Your task to perform on an android device: Add "logitech g910" to the cart on ebay, then select checkout. Image 0: 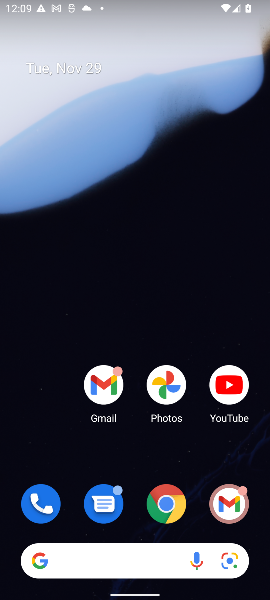
Step 0: click (170, 507)
Your task to perform on an android device: Add "logitech g910" to the cart on ebay, then select checkout. Image 1: 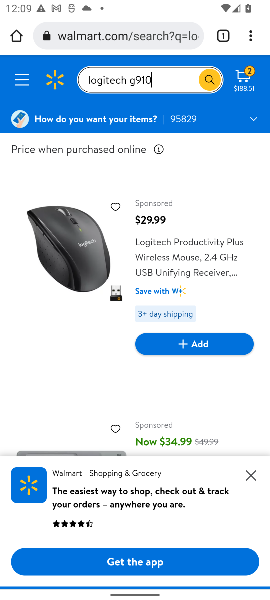
Step 1: click (101, 38)
Your task to perform on an android device: Add "logitech g910" to the cart on ebay, then select checkout. Image 2: 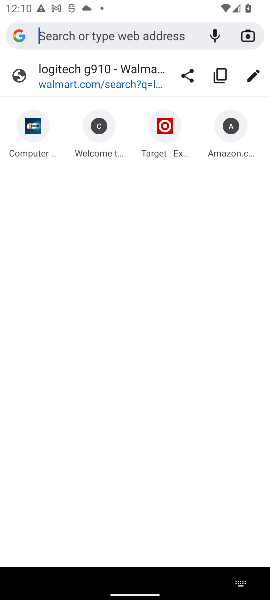
Step 2: type "ebay.com"
Your task to perform on an android device: Add "logitech g910" to the cart on ebay, then select checkout. Image 3: 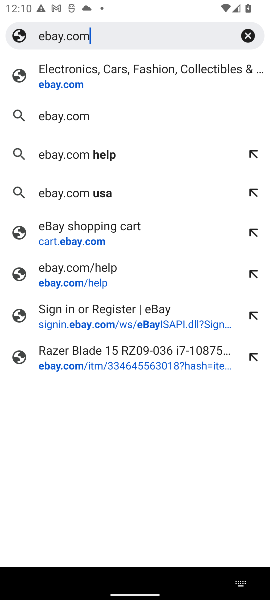
Step 3: click (53, 73)
Your task to perform on an android device: Add "logitech g910" to the cart on ebay, then select checkout. Image 4: 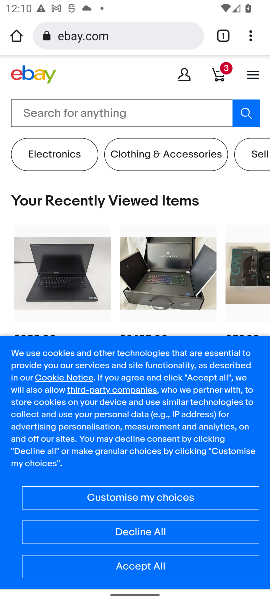
Step 4: click (32, 116)
Your task to perform on an android device: Add "logitech g910" to the cart on ebay, then select checkout. Image 5: 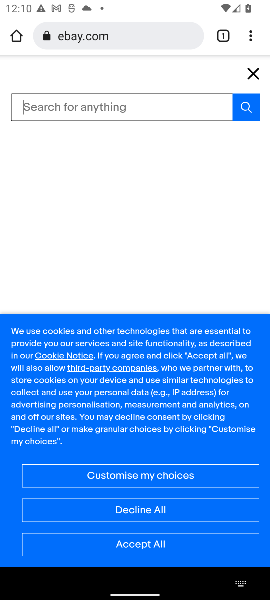
Step 5: type "logitech g910"
Your task to perform on an android device: Add "logitech g910" to the cart on ebay, then select checkout. Image 6: 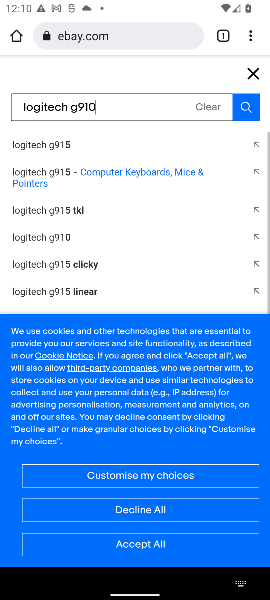
Step 6: click (247, 112)
Your task to perform on an android device: Add "logitech g910" to the cart on ebay, then select checkout. Image 7: 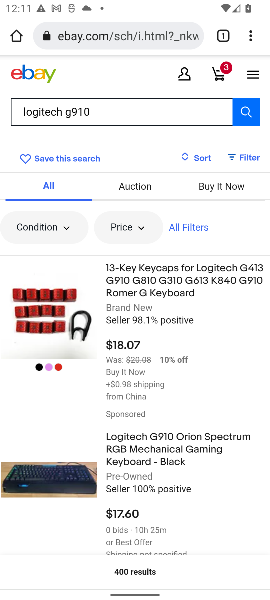
Step 7: click (128, 281)
Your task to perform on an android device: Add "logitech g910" to the cart on ebay, then select checkout. Image 8: 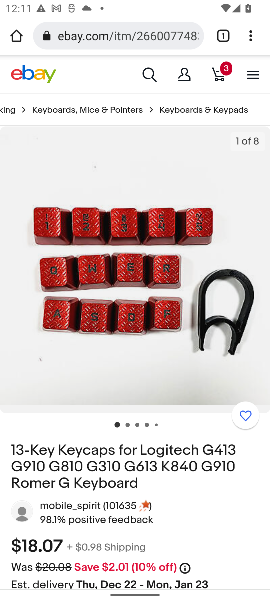
Step 8: drag from (106, 477) to (120, 213)
Your task to perform on an android device: Add "logitech g910" to the cart on ebay, then select checkout. Image 9: 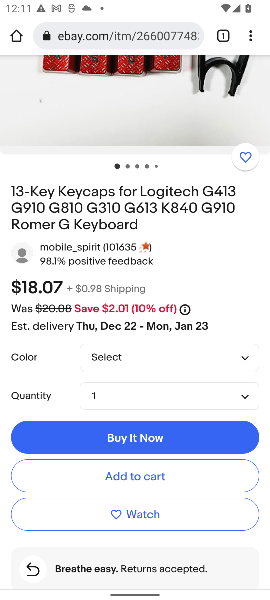
Step 9: click (114, 476)
Your task to perform on an android device: Add "logitech g910" to the cart on ebay, then select checkout. Image 10: 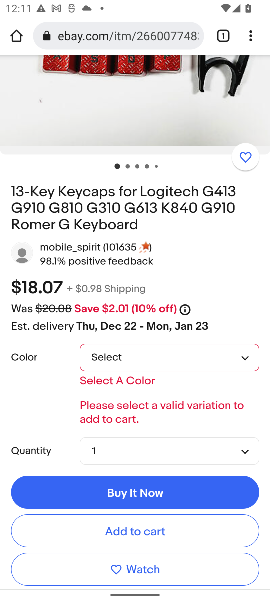
Step 10: click (241, 357)
Your task to perform on an android device: Add "logitech g910" to the cart on ebay, then select checkout. Image 11: 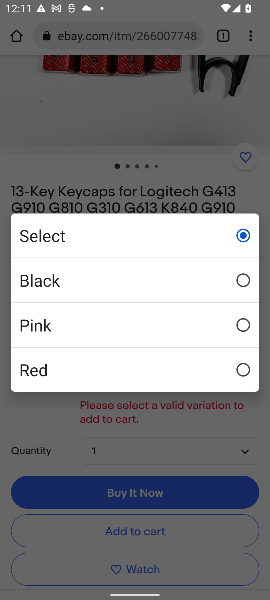
Step 11: click (55, 289)
Your task to perform on an android device: Add "logitech g910" to the cart on ebay, then select checkout. Image 12: 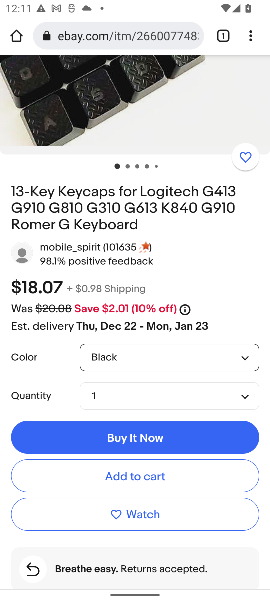
Step 12: click (131, 474)
Your task to perform on an android device: Add "logitech g910" to the cart on ebay, then select checkout. Image 13: 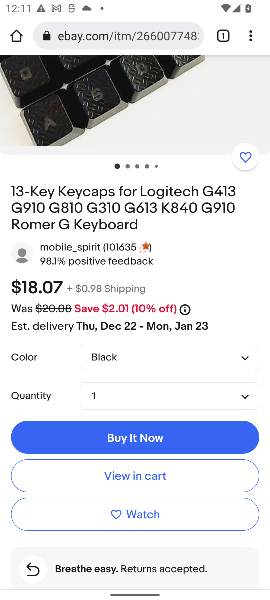
Step 13: click (131, 474)
Your task to perform on an android device: Add "logitech g910" to the cart on ebay, then select checkout. Image 14: 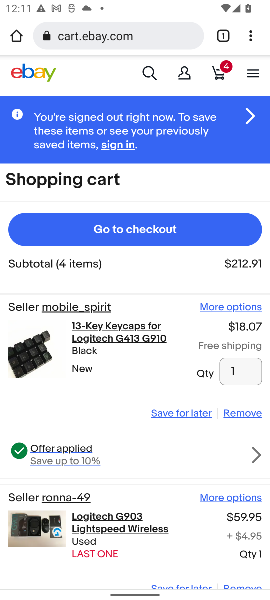
Step 14: click (128, 229)
Your task to perform on an android device: Add "logitech g910" to the cart on ebay, then select checkout. Image 15: 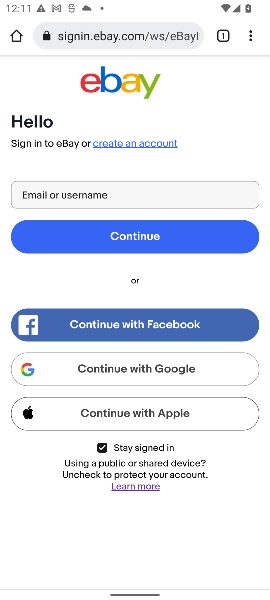
Step 15: task complete